Your task to perform on an android device: open the mobile data screen to see how much data has been used Image 0: 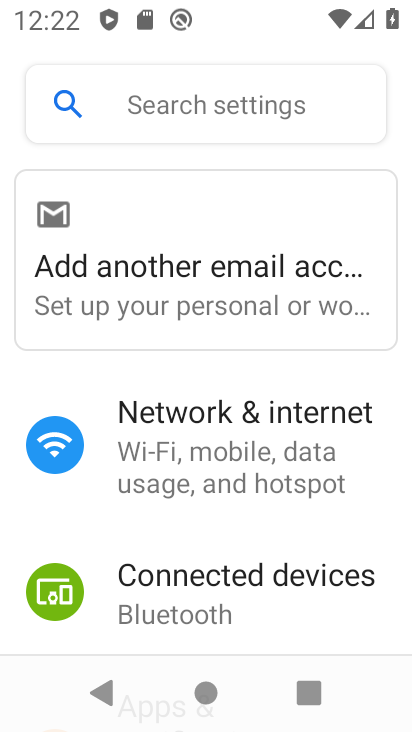
Step 0: click (305, 462)
Your task to perform on an android device: open the mobile data screen to see how much data has been used Image 1: 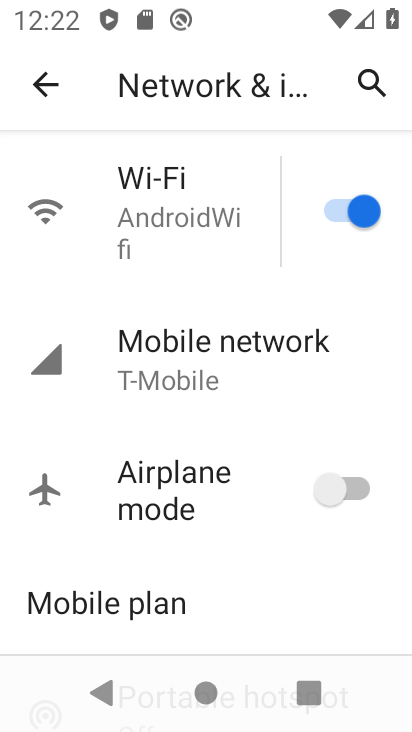
Step 1: click (238, 347)
Your task to perform on an android device: open the mobile data screen to see how much data has been used Image 2: 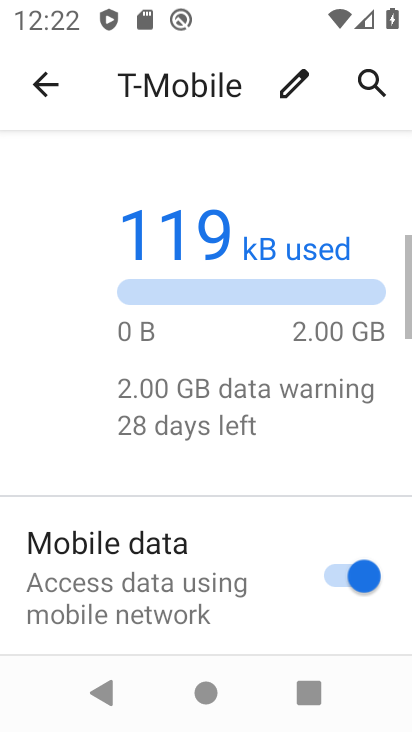
Step 2: drag from (161, 628) to (196, 289)
Your task to perform on an android device: open the mobile data screen to see how much data has been used Image 3: 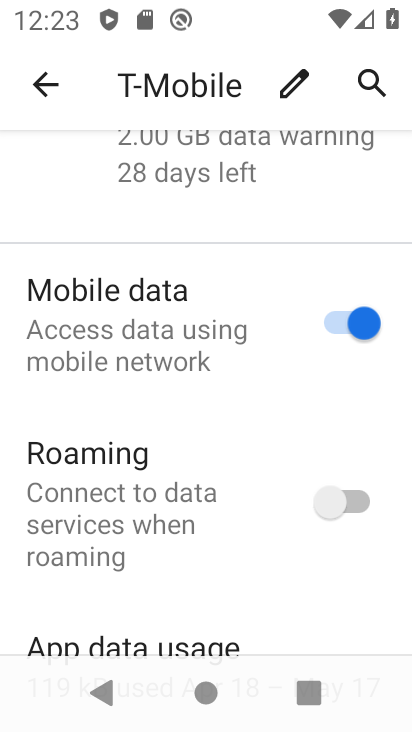
Step 3: drag from (162, 542) to (189, 260)
Your task to perform on an android device: open the mobile data screen to see how much data has been used Image 4: 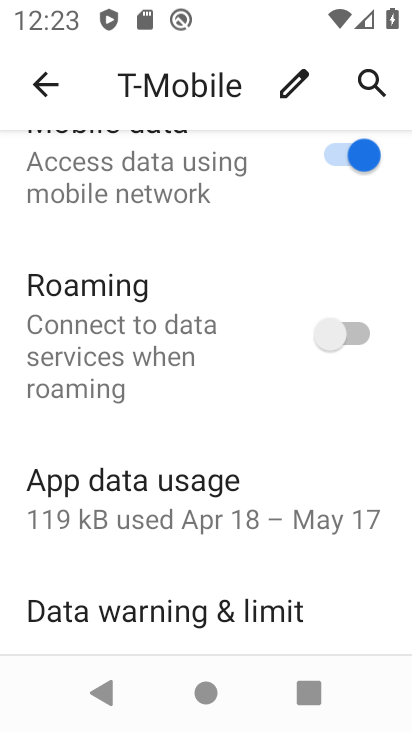
Step 4: drag from (169, 553) to (164, 675)
Your task to perform on an android device: open the mobile data screen to see how much data has been used Image 5: 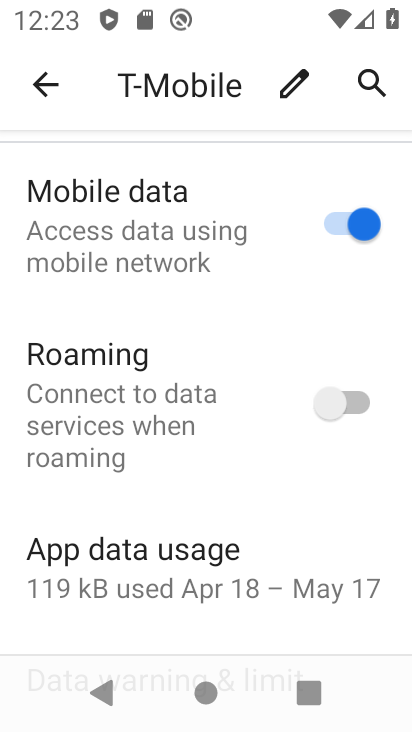
Step 5: drag from (183, 524) to (223, 387)
Your task to perform on an android device: open the mobile data screen to see how much data has been used Image 6: 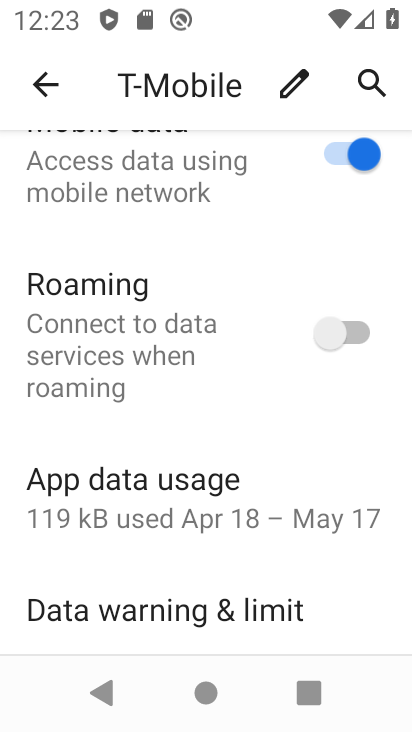
Step 6: click (86, 491)
Your task to perform on an android device: open the mobile data screen to see how much data has been used Image 7: 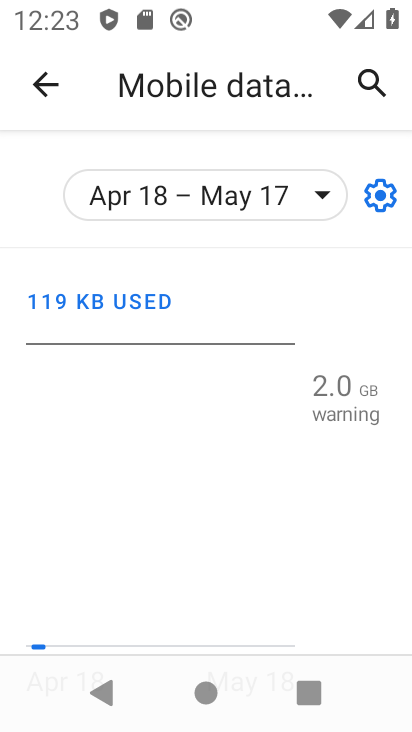
Step 7: task complete